Your task to perform on an android device: Show me recent news Image 0: 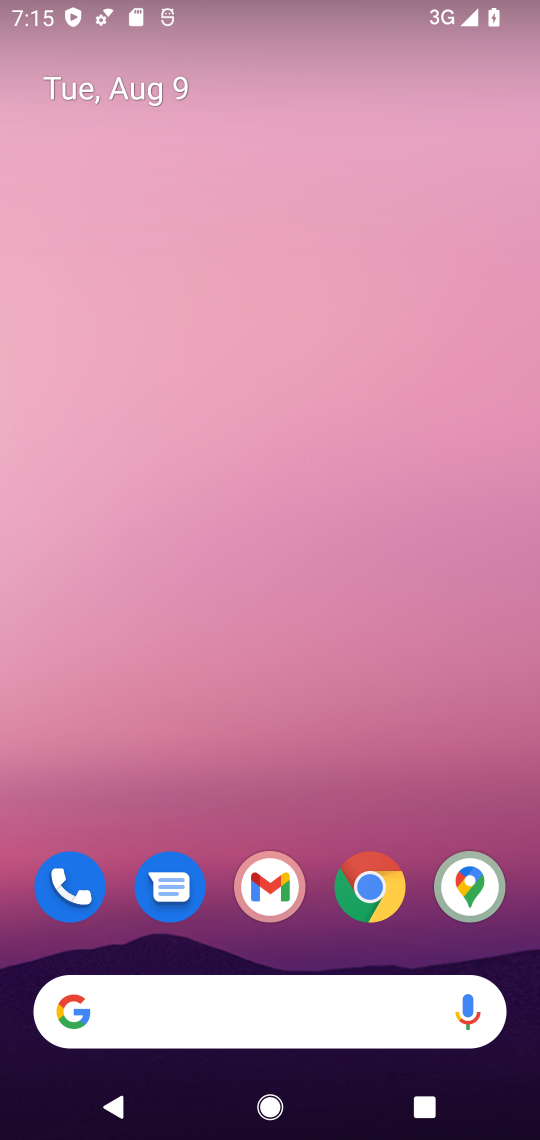
Step 0: click (243, 1026)
Your task to perform on an android device: Show me recent news Image 1: 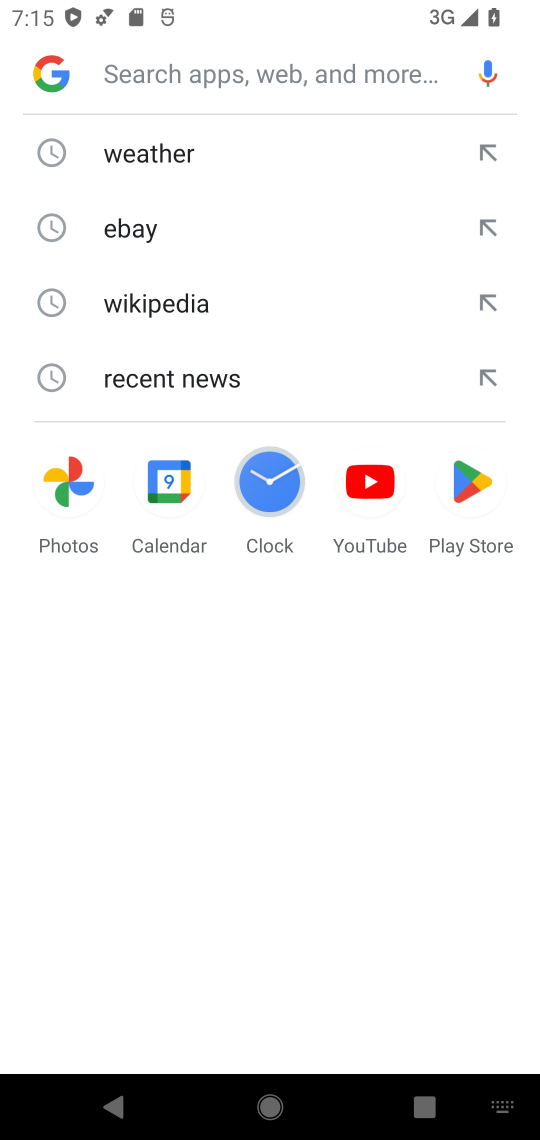
Step 1: click (232, 371)
Your task to perform on an android device: Show me recent news Image 2: 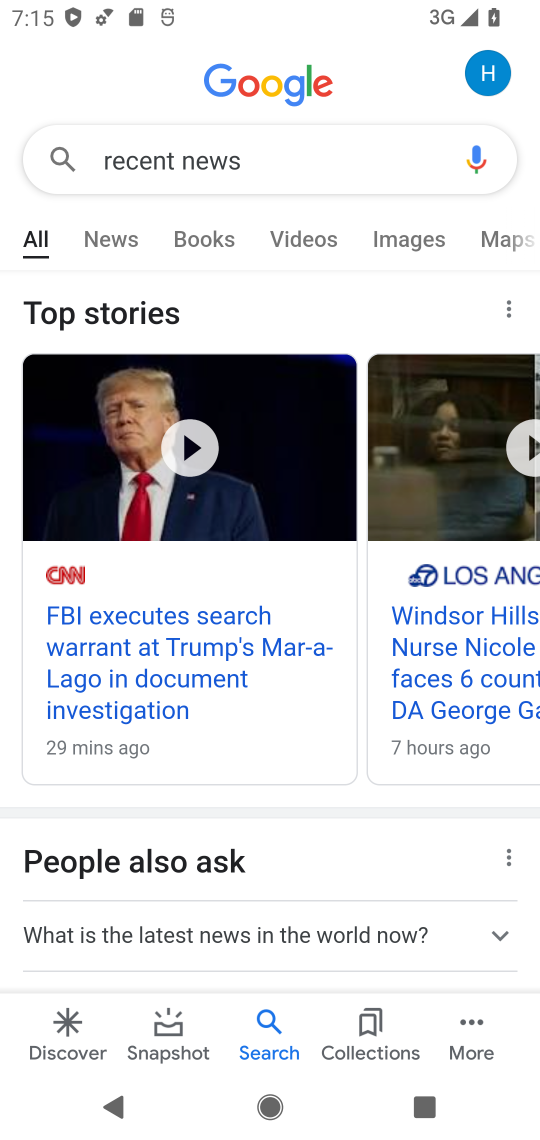
Step 2: click (174, 665)
Your task to perform on an android device: Show me recent news Image 3: 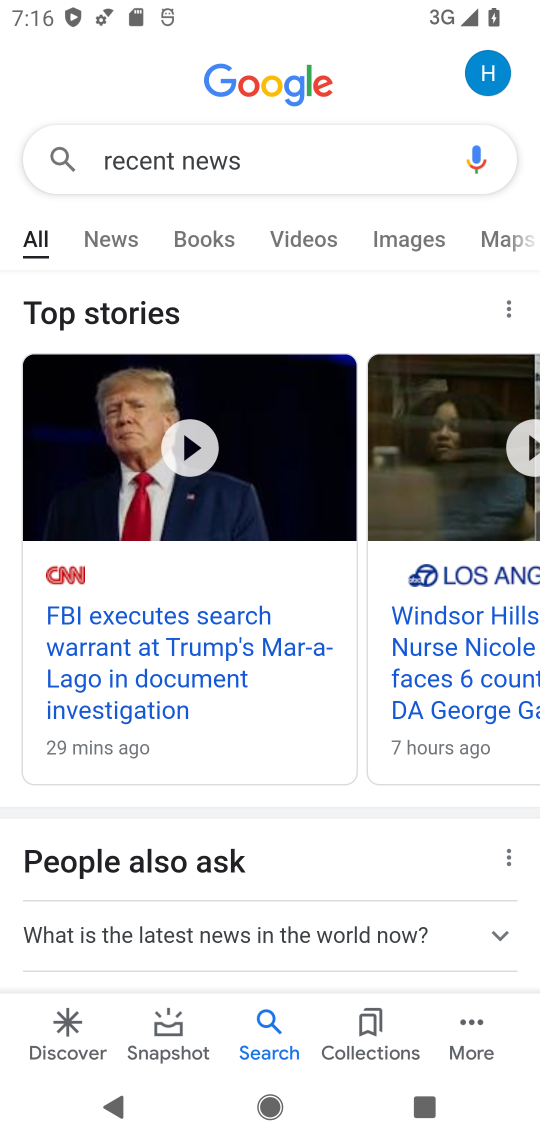
Step 3: task complete